Your task to perform on an android device: Clear all items from cart on target. Add usb-c to usb-a to the cart on target, then select checkout. Image 0: 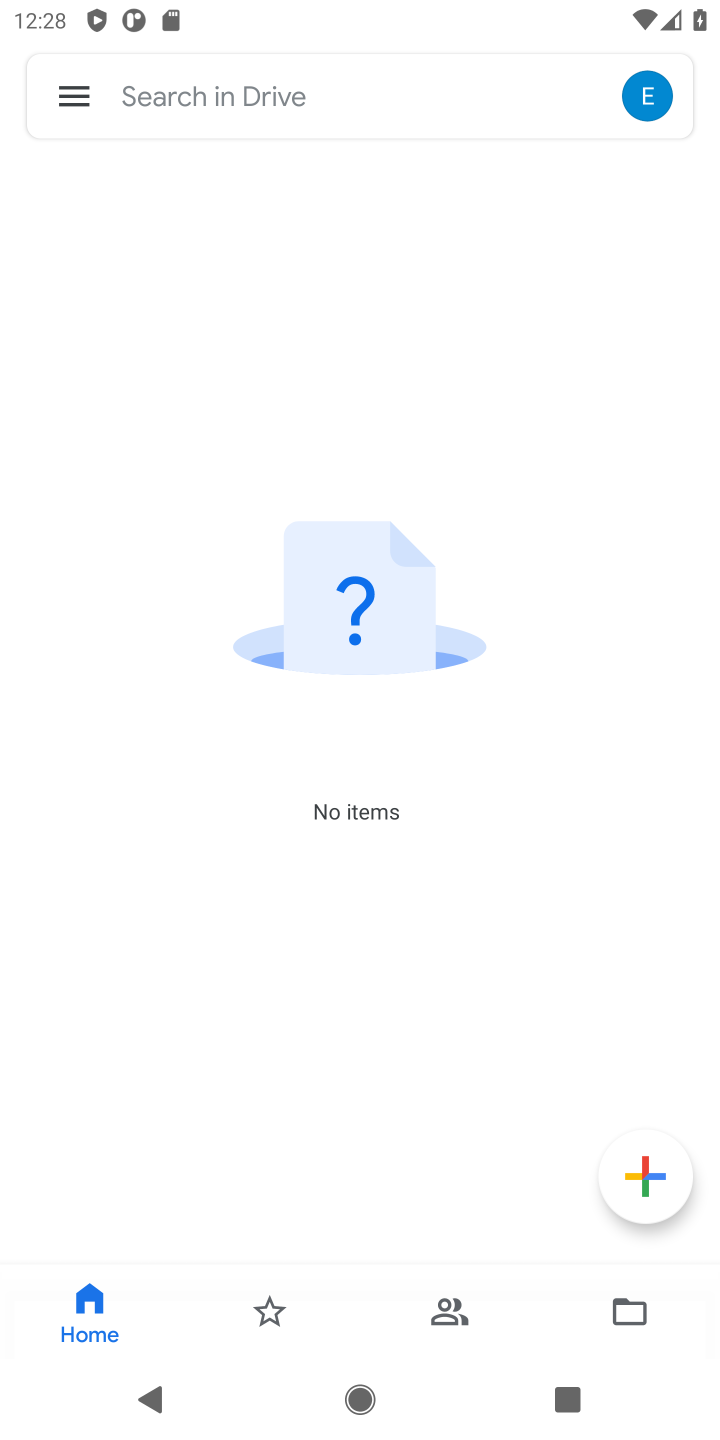
Step 0: task complete